Your task to perform on an android device: turn vacation reply on in the gmail app Image 0: 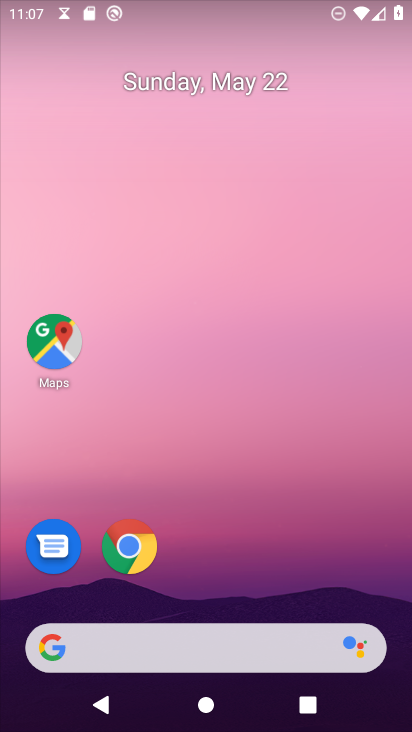
Step 0: drag from (222, 598) to (350, 1)
Your task to perform on an android device: turn vacation reply on in the gmail app Image 1: 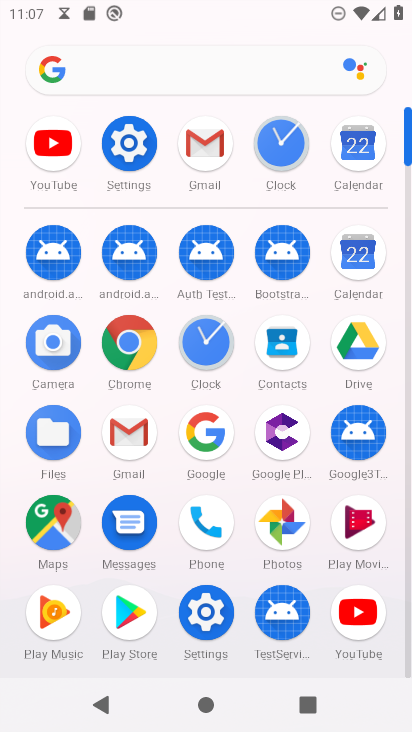
Step 1: click (132, 416)
Your task to perform on an android device: turn vacation reply on in the gmail app Image 2: 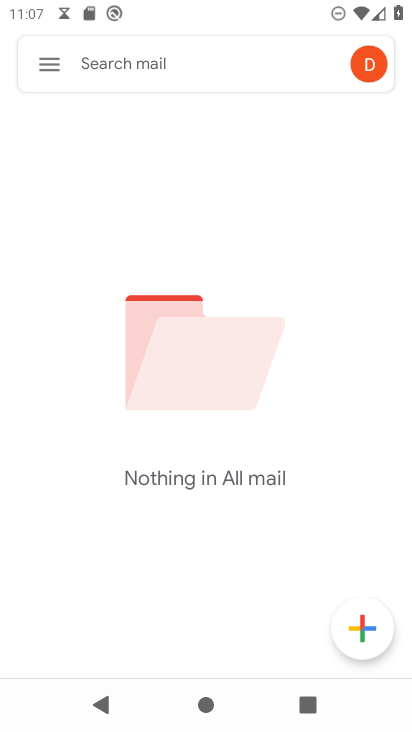
Step 2: click (50, 53)
Your task to perform on an android device: turn vacation reply on in the gmail app Image 3: 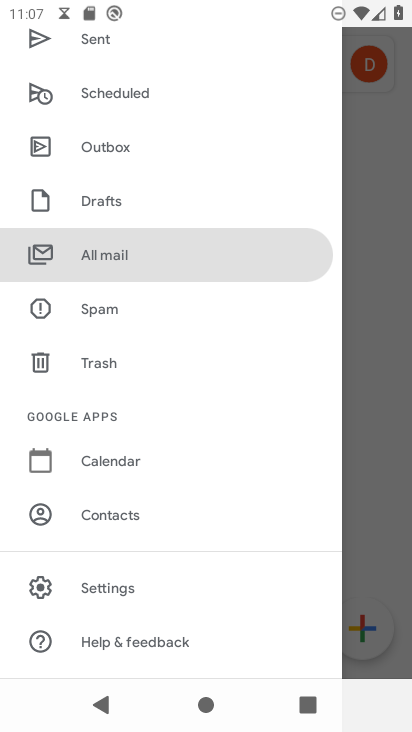
Step 3: click (127, 596)
Your task to perform on an android device: turn vacation reply on in the gmail app Image 4: 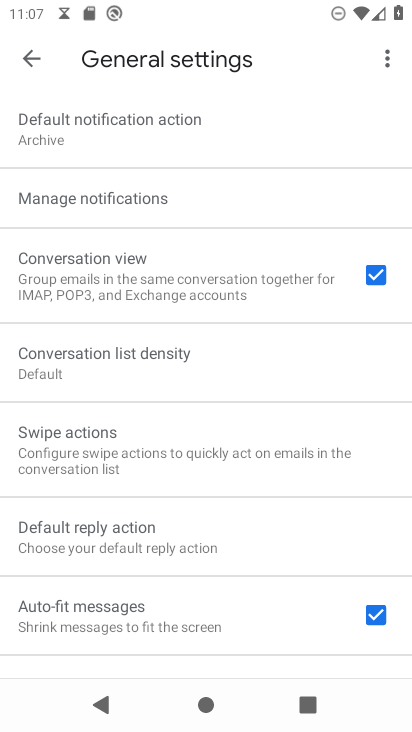
Step 4: drag from (169, 545) to (226, 82)
Your task to perform on an android device: turn vacation reply on in the gmail app Image 5: 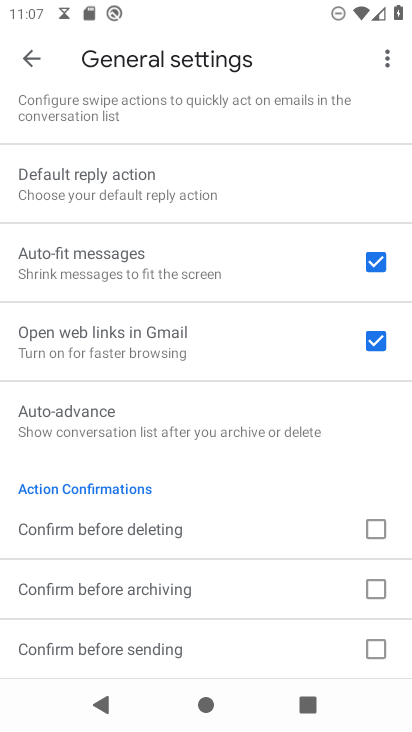
Step 5: click (26, 51)
Your task to perform on an android device: turn vacation reply on in the gmail app Image 6: 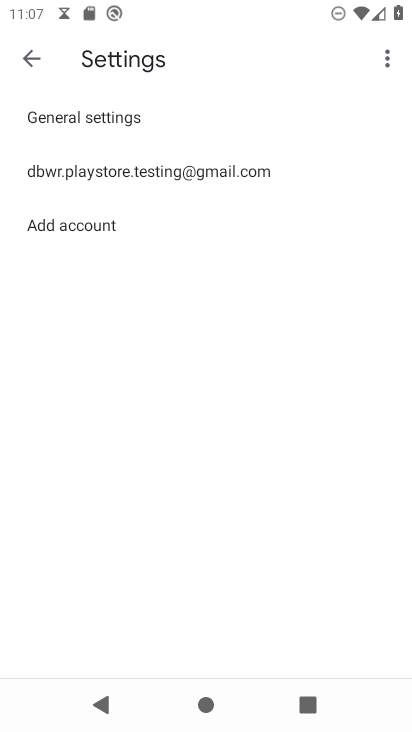
Step 6: click (176, 178)
Your task to perform on an android device: turn vacation reply on in the gmail app Image 7: 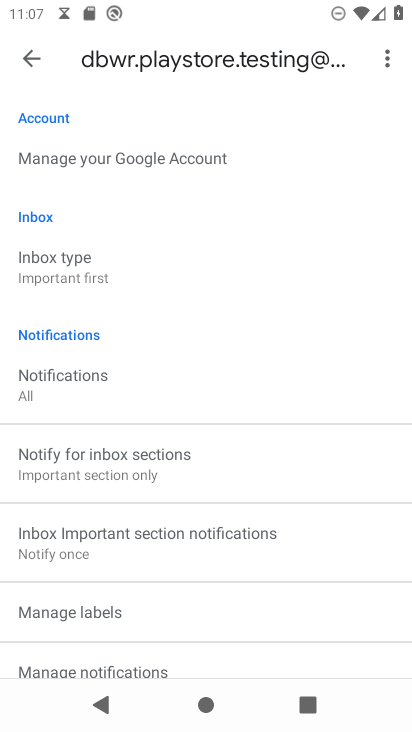
Step 7: drag from (168, 612) to (241, 143)
Your task to perform on an android device: turn vacation reply on in the gmail app Image 8: 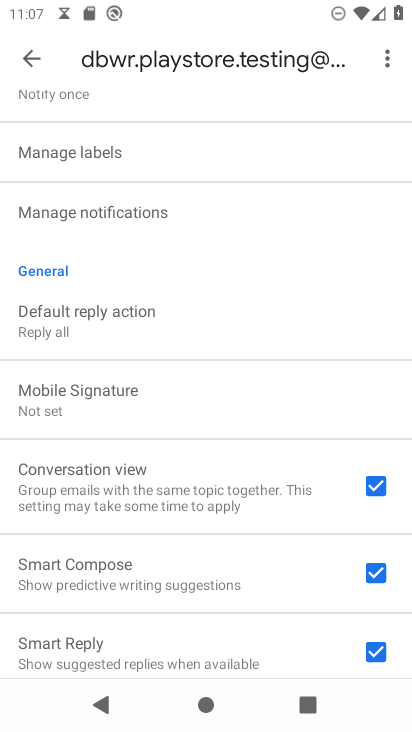
Step 8: drag from (214, 601) to (287, 74)
Your task to perform on an android device: turn vacation reply on in the gmail app Image 9: 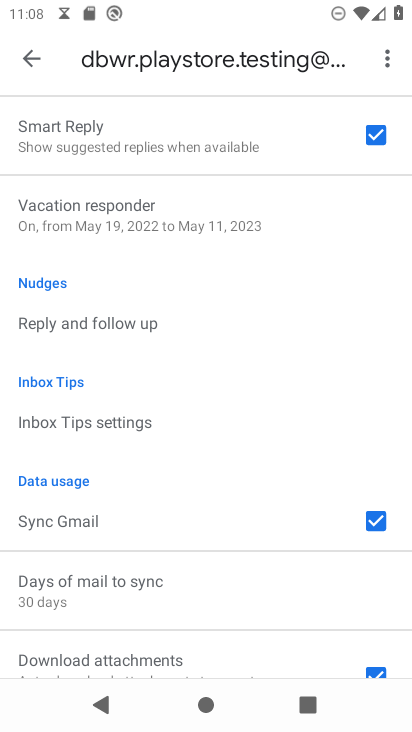
Step 9: click (170, 234)
Your task to perform on an android device: turn vacation reply on in the gmail app Image 10: 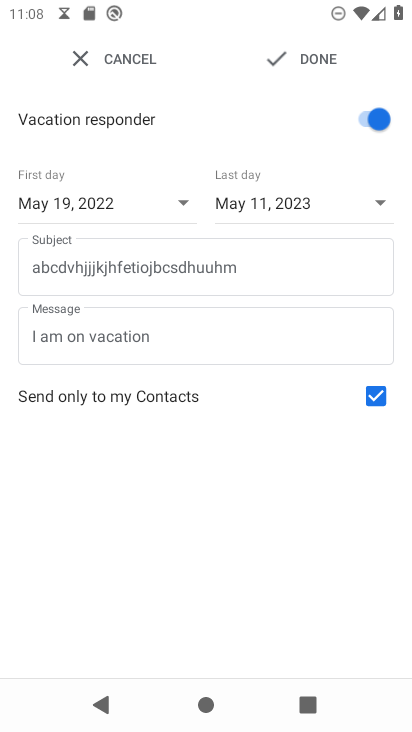
Step 10: task complete